Your task to perform on an android device: Go to eBay Image 0: 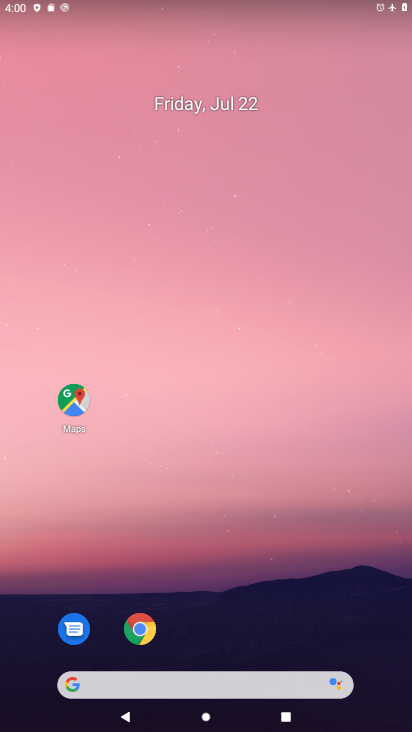
Step 0: drag from (319, 572) to (251, 0)
Your task to perform on an android device: Go to eBay Image 1: 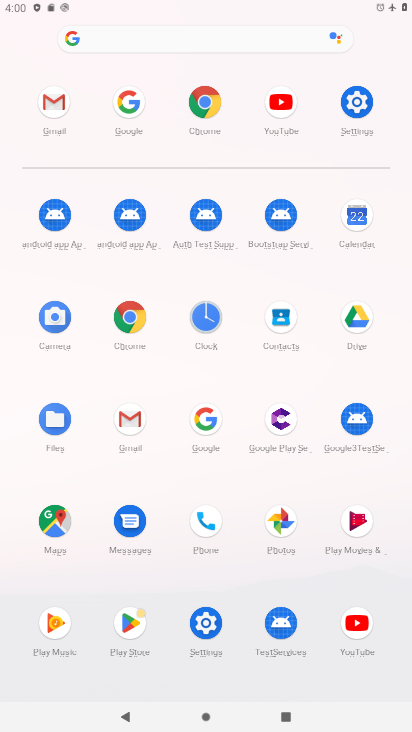
Step 1: click (202, 91)
Your task to perform on an android device: Go to eBay Image 2: 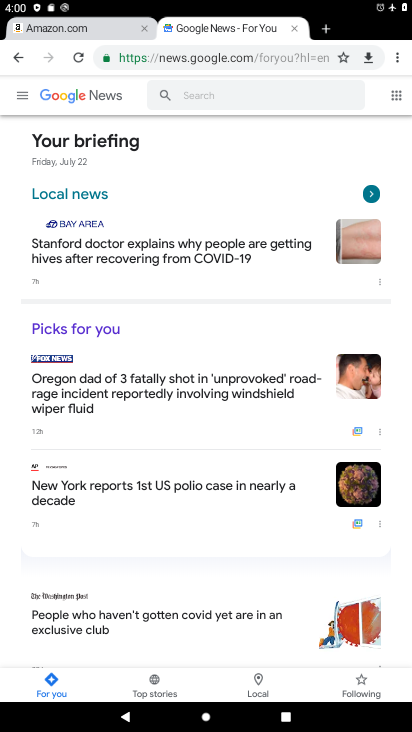
Step 2: click (217, 63)
Your task to perform on an android device: Go to eBay Image 3: 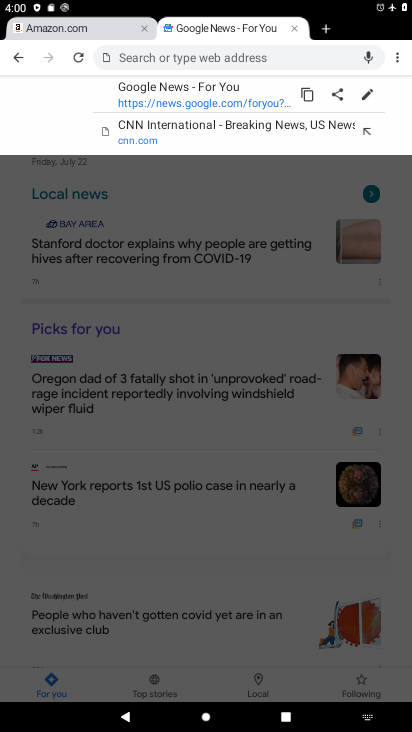
Step 3: type "ebay"
Your task to perform on an android device: Go to eBay Image 4: 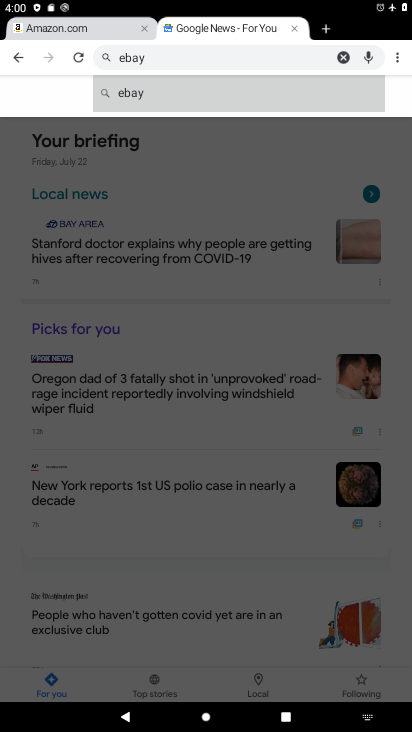
Step 4: click (251, 102)
Your task to perform on an android device: Go to eBay Image 5: 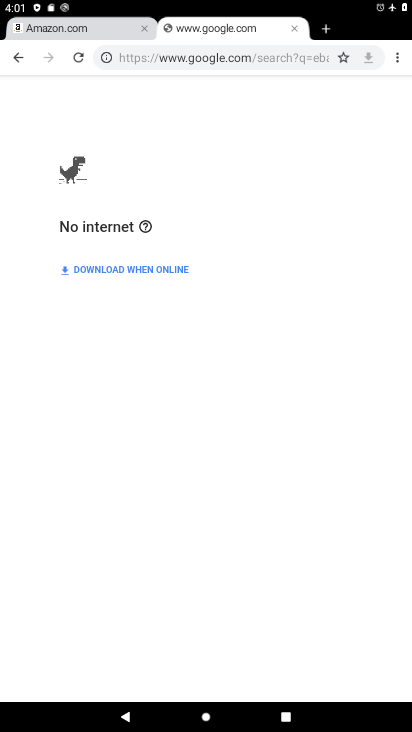
Step 5: task complete